Your task to perform on an android device: Go to network settings Image 0: 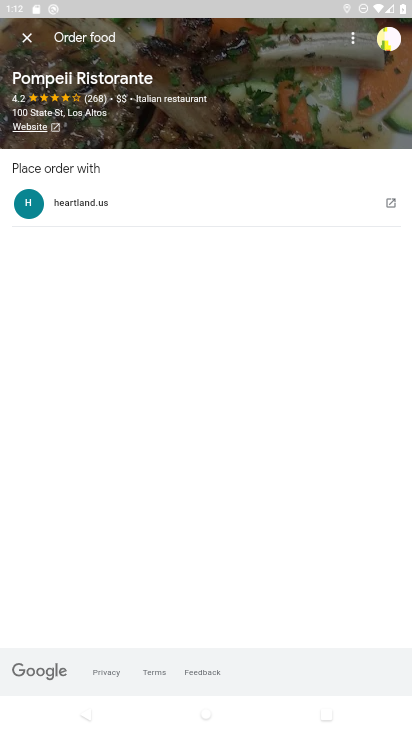
Step 0: press home button
Your task to perform on an android device: Go to network settings Image 1: 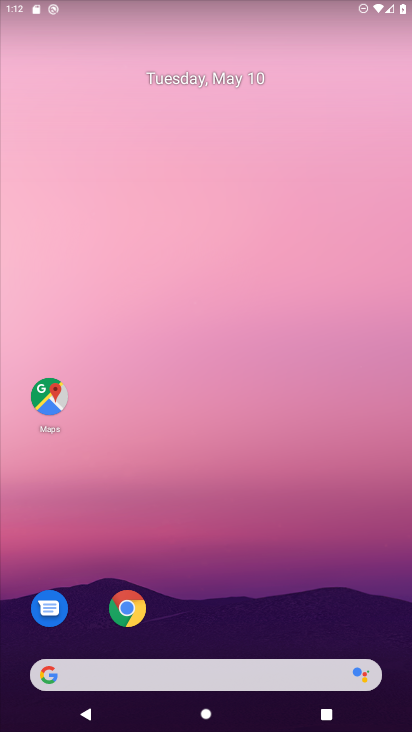
Step 1: drag from (351, 568) to (348, 166)
Your task to perform on an android device: Go to network settings Image 2: 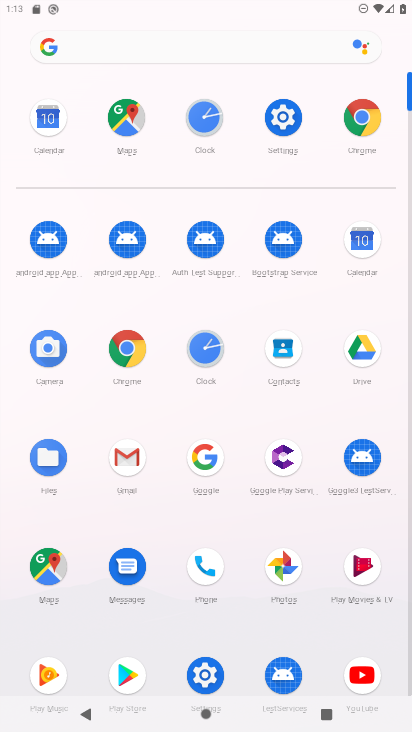
Step 2: click (289, 113)
Your task to perform on an android device: Go to network settings Image 3: 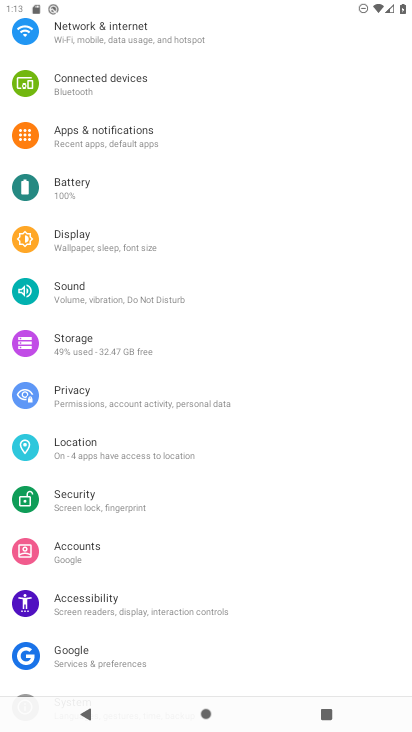
Step 3: drag from (179, 85) to (177, 286)
Your task to perform on an android device: Go to network settings Image 4: 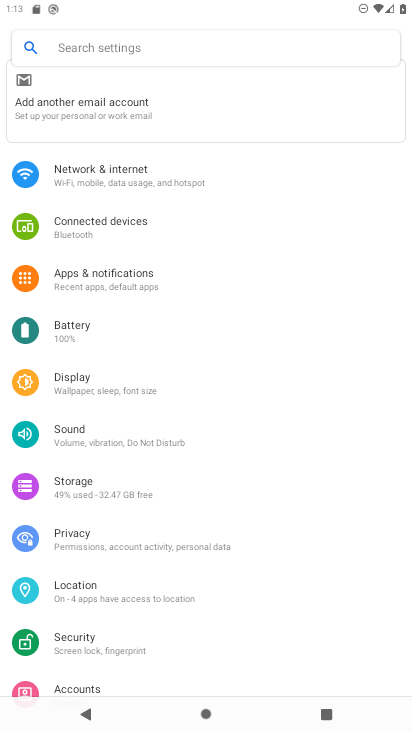
Step 4: click (77, 171)
Your task to perform on an android device: Go to network settings Image 5: 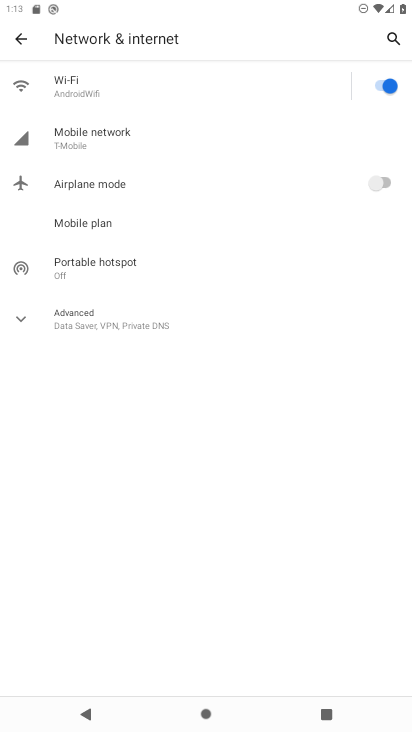
Step 5: click (118, 126)
Your task to perform on an android device: Go to network settings Image 6: 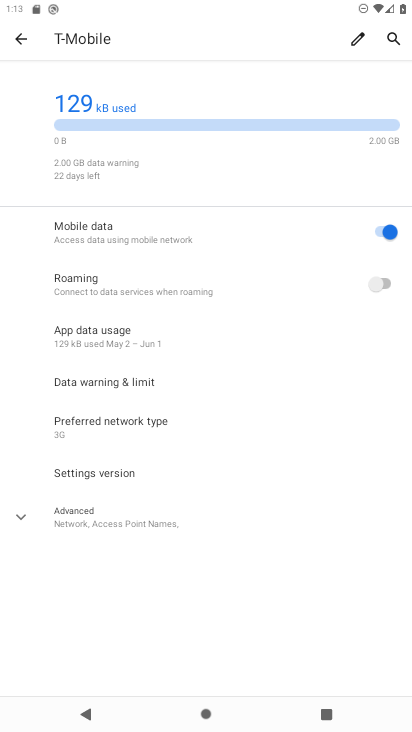
Step 6: task complete